Your task to perform on an android device: toggle location history Image 0: 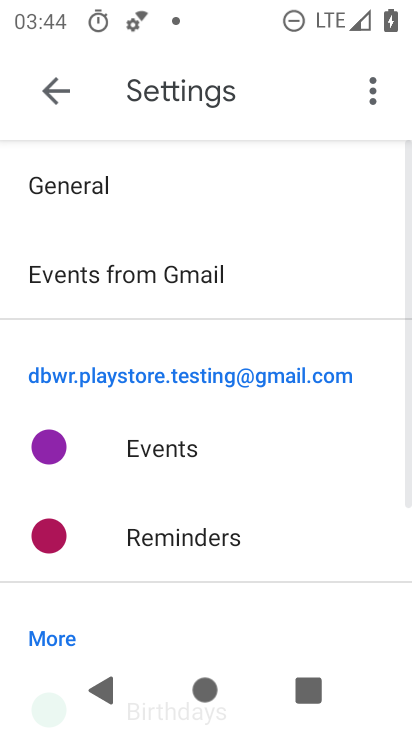
Step 0: press home button
Your task to perform on an android device: toggle location history Image 1: 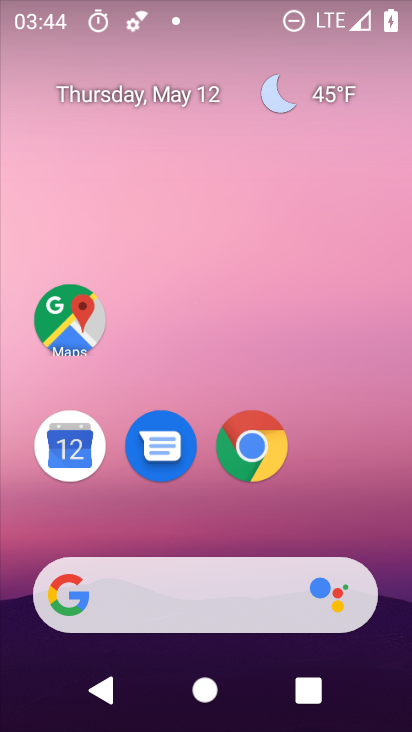
Step 1: drag from (250, 502) to (301, 136)
Your task to perform on an android device: toggle location history Image 2: 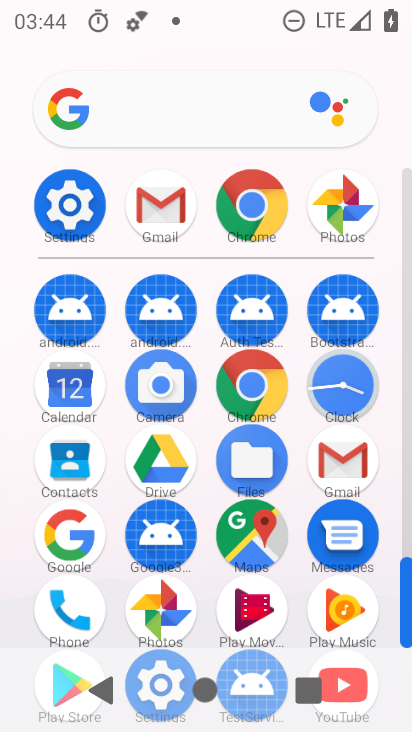
Step 2: click (97, 226)
Your task to perform on an android device: toggle location history Image 3: 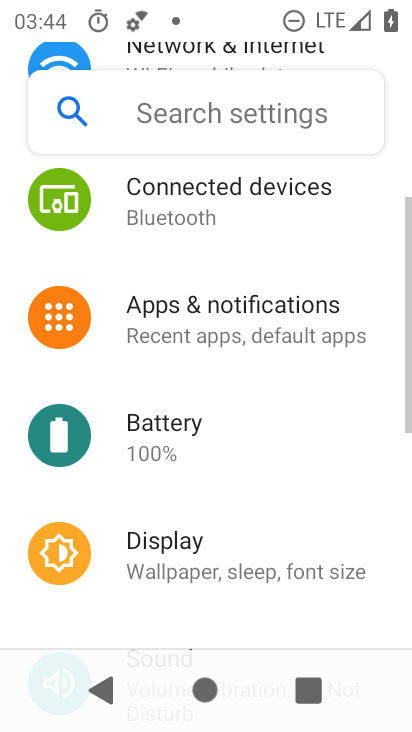
Step 3: drag from (225, 509) to (301, 138)
Your task to perform on an android device: toggle location history Image 4: 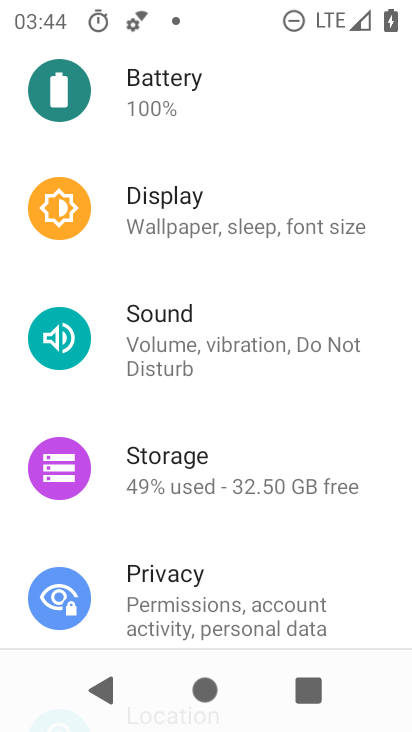
Step 4: drag from (214, 564) to (285, 173)
Your task to perform on an android device: toggle location history Image 5: 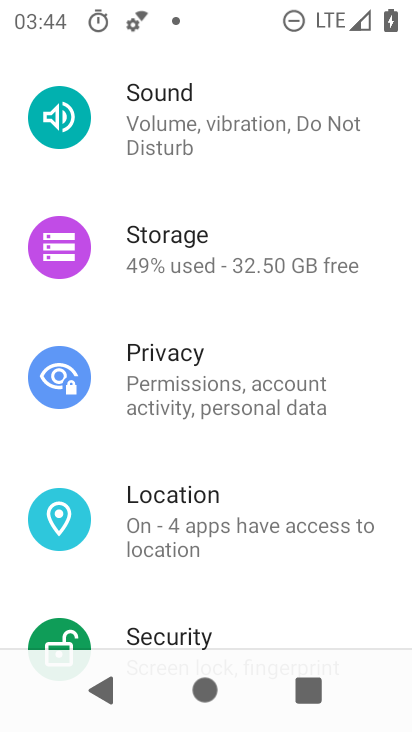
Step 5: click (227, 502)
Your task to perform on an android device: toggle location history Image 6: 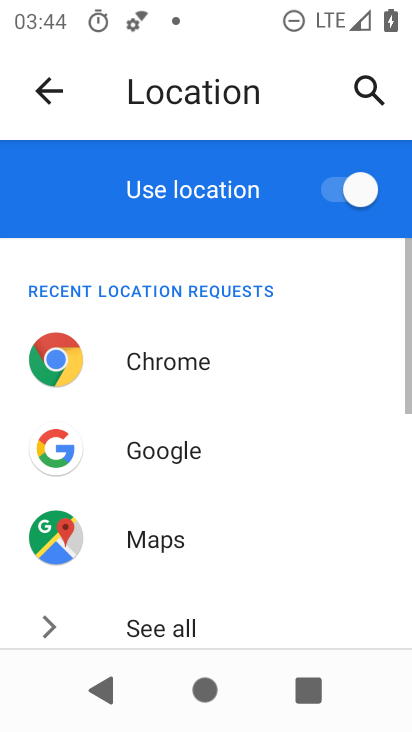
Step 6: drag from (234, 544) to (279, 115)
Your task to perform on an android device: toggle location history Image 7: 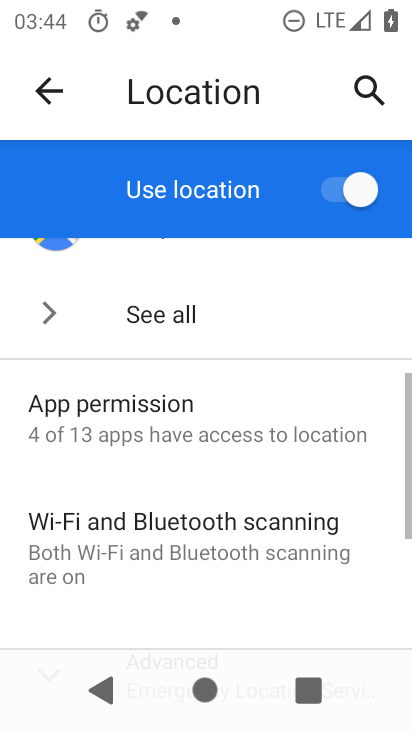
Step 7: drag from (224, 526) to (252, 295)
Your task to perform on an android device: toggle location history Image 8: 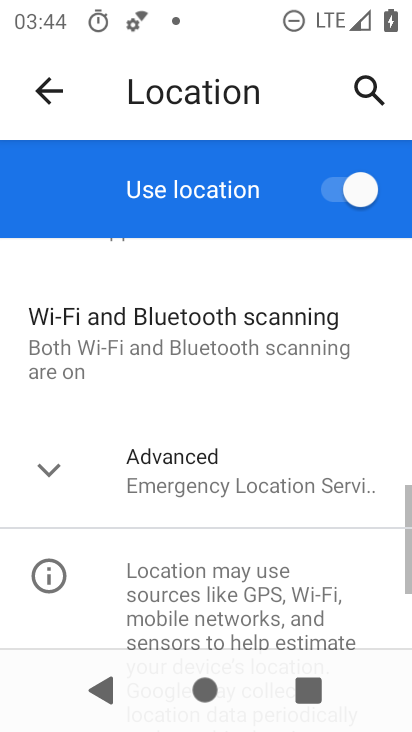
Step 8: click (218, 473)
Your task to perform on an android device: toggle location history Image 9: 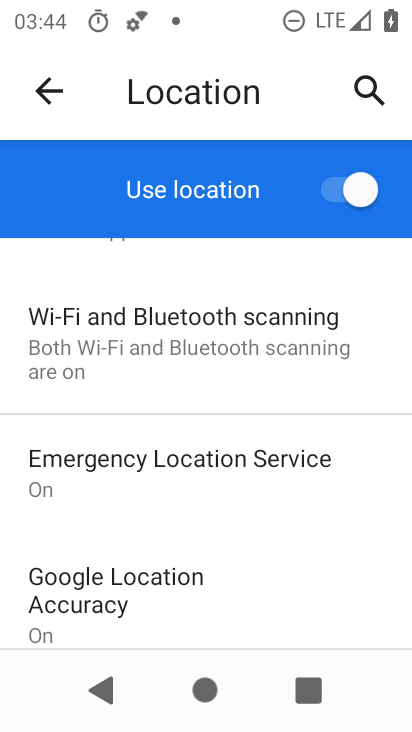
Step 9: drag from (149, 547) to (192, 330)
Your task to perform on an android device: toggle location history Image 10: 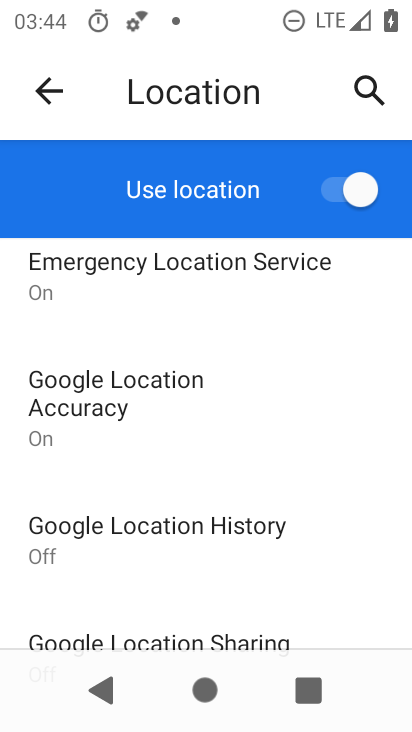
Step 10: click (203, 557)
Your task to perform on an android device: toggle location history Image 11: 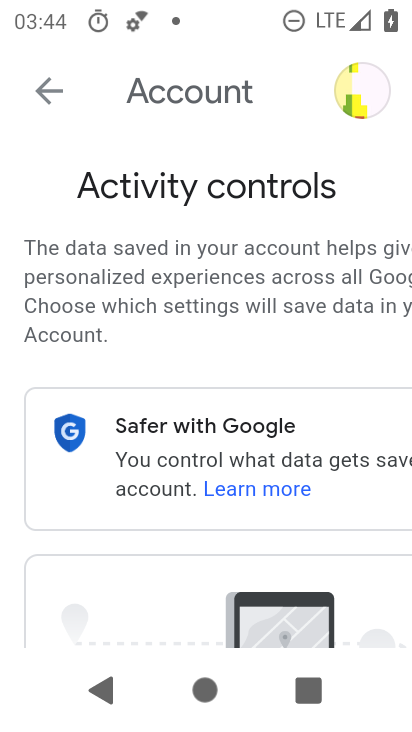
Step 11: drag from (223, 537) to (237, 287)
Your task to perform on an android device: toggle location history Image 12: 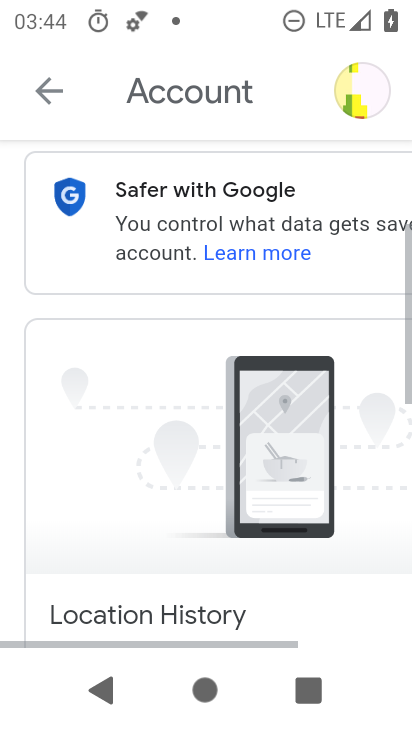
Step 12: drag from (211, 613) to (240, 318)
Your task to perform on an android device: toggle location history Image 13: 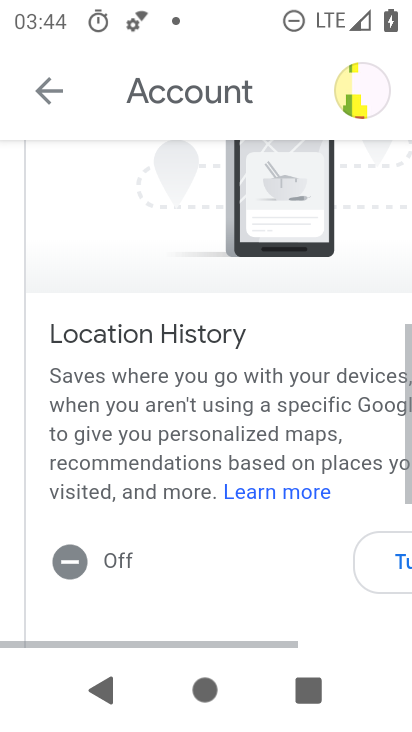
Step 13: drag from (236, 532) to (251, 363)
Your task to perform on an android device: toggle location history Image 14: 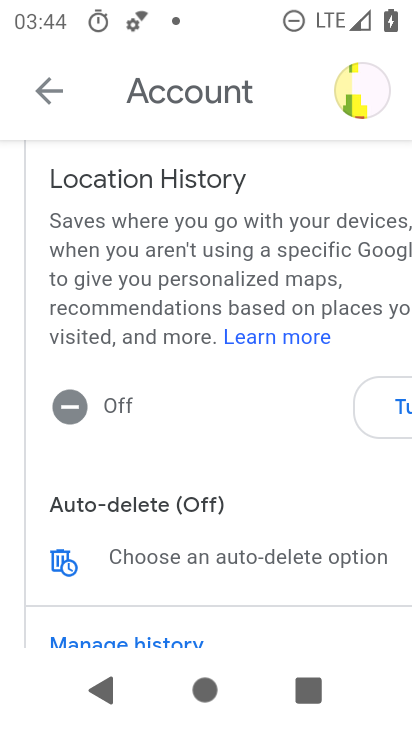
Step 14: click (371, 415)
Your task to perform on an android device: toggle location history Image 15: 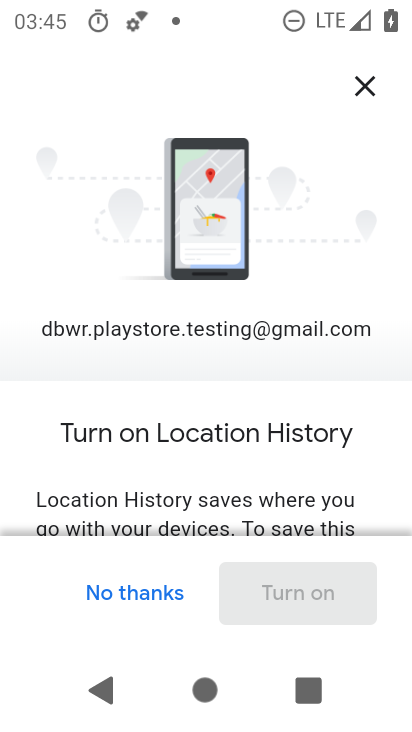
Step 15: drag from (321, 489) to (320, 138)
Your task to perform on an android device: toggle location history Image 16: 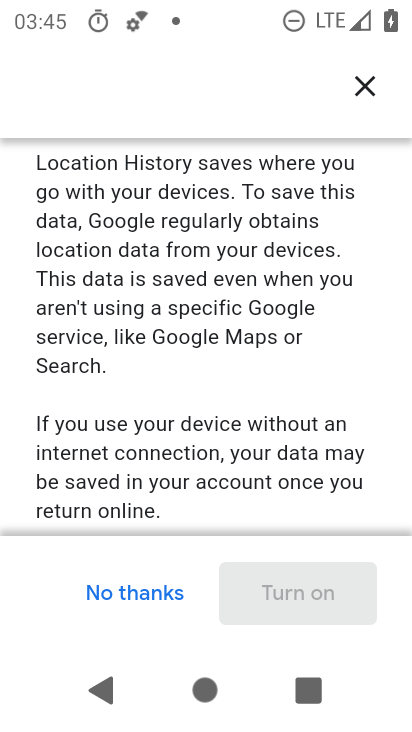
Step 16: drag from (263, 421) to (285, 187)
Your task to perform on an android device: toggle location history Image 17: 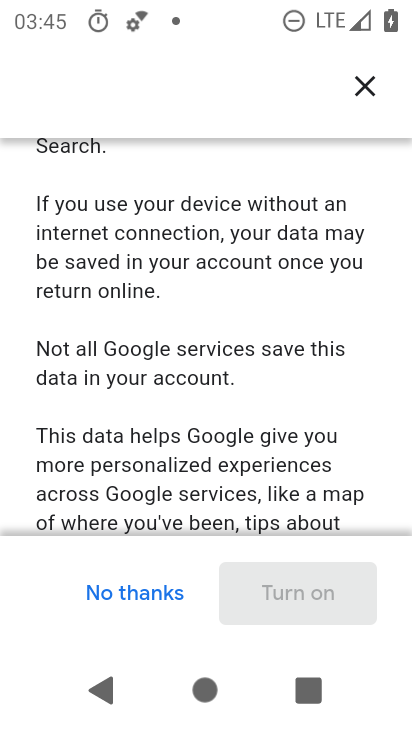
Step 17: drag from (266, 486) to (304, 231)
Your task to perform on an android device: toggle location history Image 18: 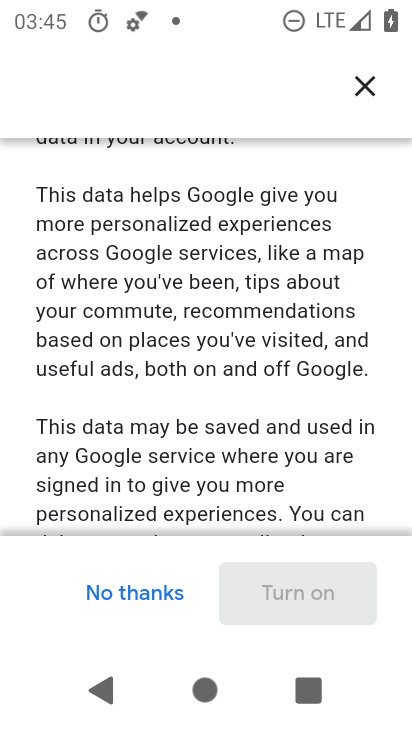
Step 18: drag from (283, 469) to (291, 197)
Your task to perform on an android device: toggle location history Image 19: 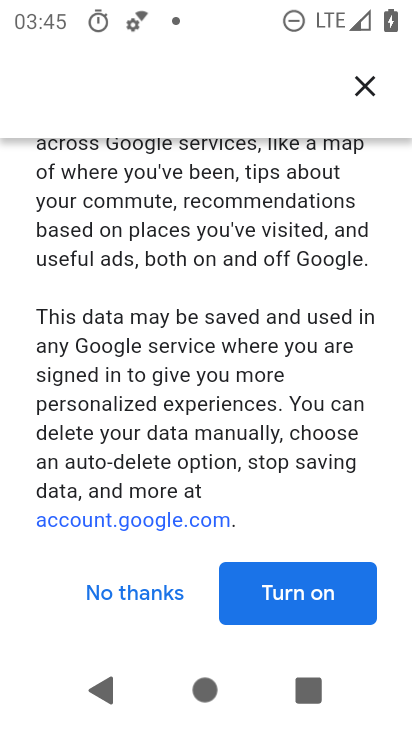
Step 19: drag from (272, 474) to (280, 210)
Your task to perform on an android device: toggle location history Image 20: 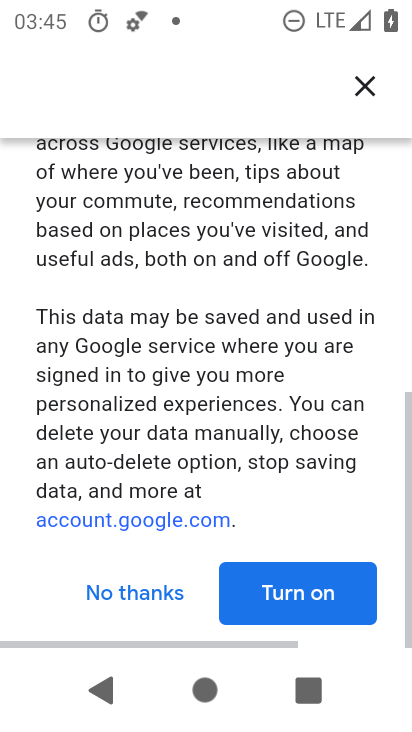
Step 20: click (287, 582)
Your task to perform on an android device: toggle location history Image 21: 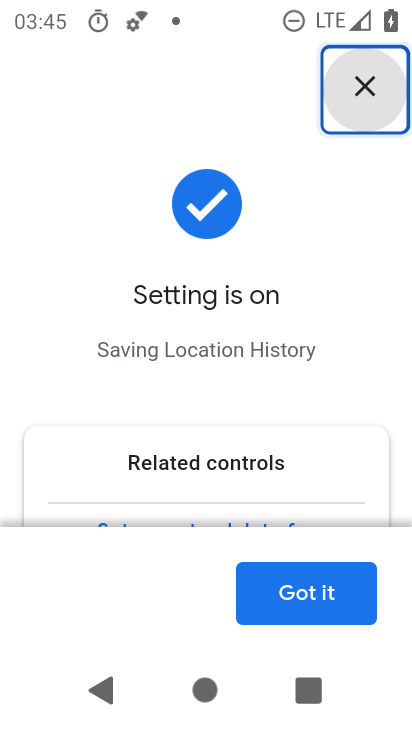
Step 21: task complete